Your task to perform on an android device: Toggle the flashlight Image 0: 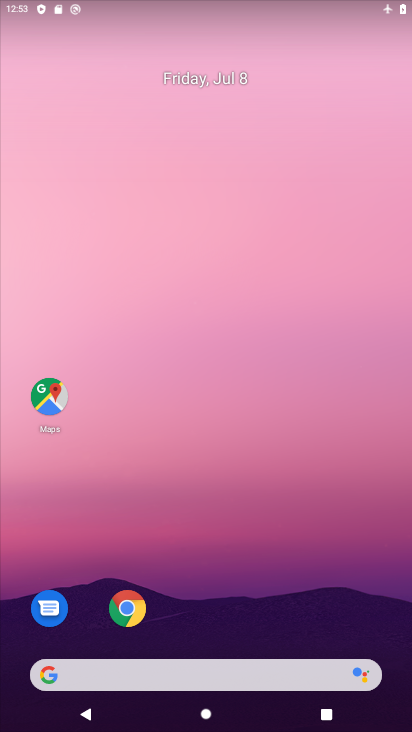
Step 0: drag from (225, 6) to (200, 401)
Your task to perform on an android device: Toggle the flashlight Image 1: 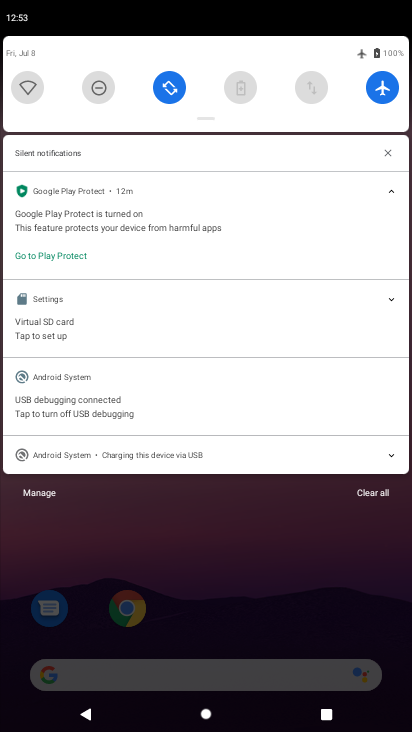
Step 1: drag from (197, 118) to (193, 374)
Your task to perform on an android device: Toggle the flashlight Image 2: 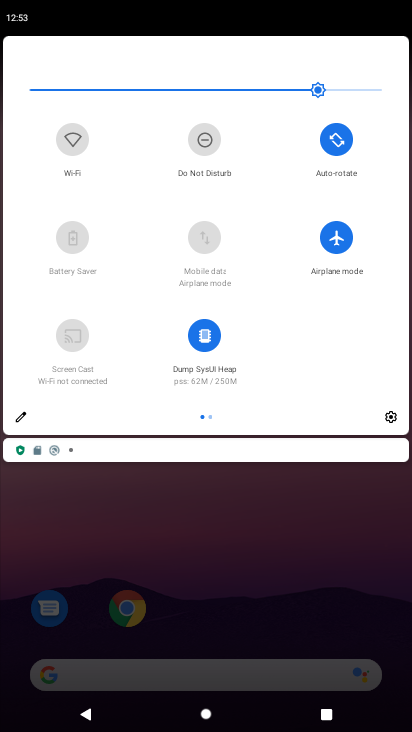
Step 2: click (19, 416)
Your task to perform on an android device: Toggle the flashlight Image 3: 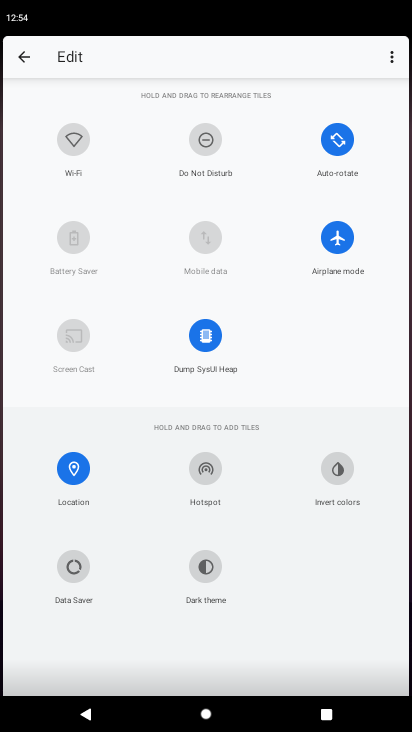
Step 3: click (276, 525)
Your task to perform on an android device: Toggle the flashlight Image 4: 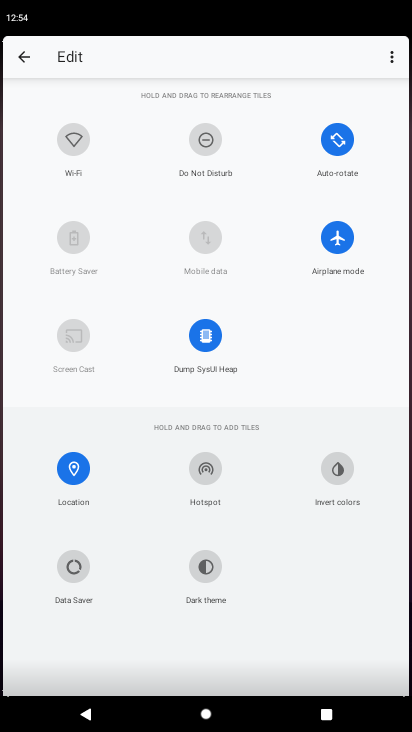
Step 4: task complete